Your task to perform on an android device: Open the stopwatch Image 0: 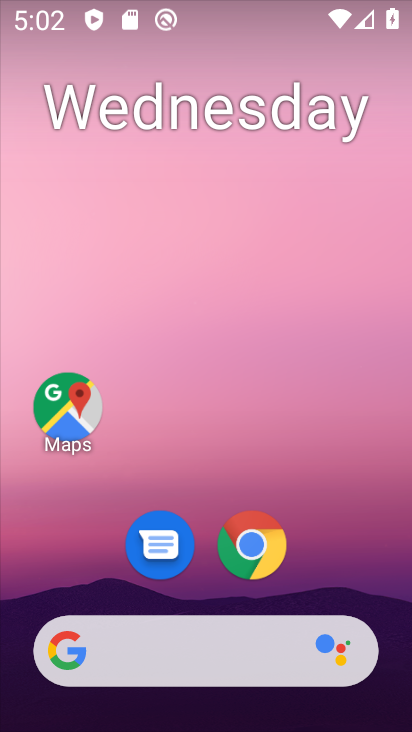
Step 0: drag from (334, 544) to (331, 150)
Your task to perform on an android device: Open the stopwatch Image 1: 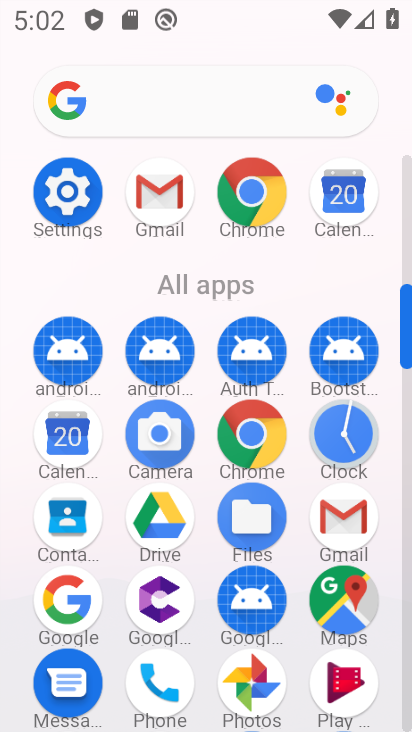
Step 1: click (340, 423)
Your task to perform on an android device: Open the stopwatch Image 2: 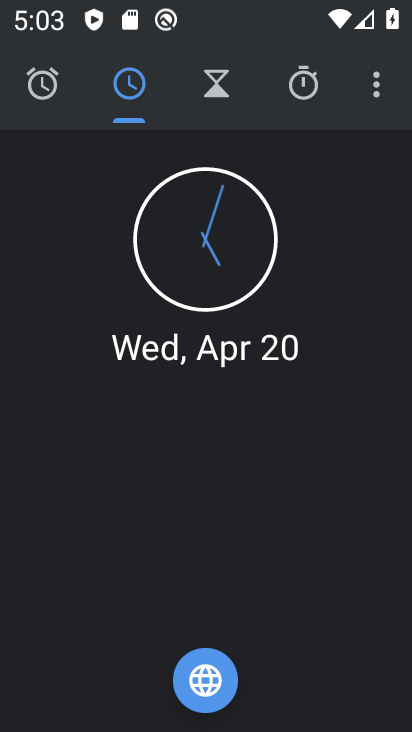
Step 2: click (310, 73)
Your task to perform on an android device: Open the stopwatch Image 3: 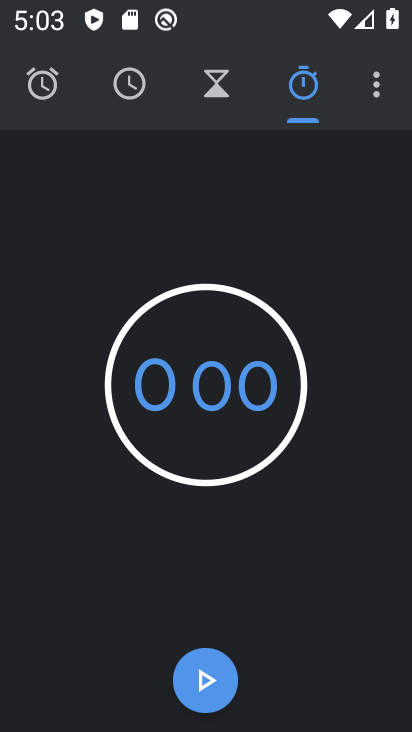
Step 3: task complete